Your task to perform on an android device: Set the phone to "Do not disturb". Image 0: 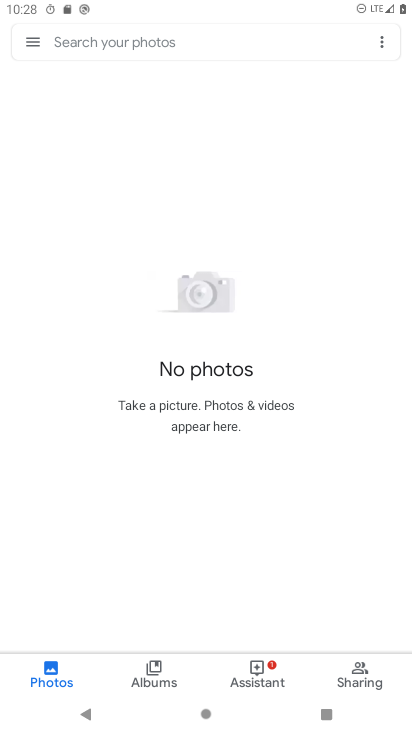
Step 0: press home button
Your task to perform on an android device: Set the phone to "Do not disturb". Image 1: 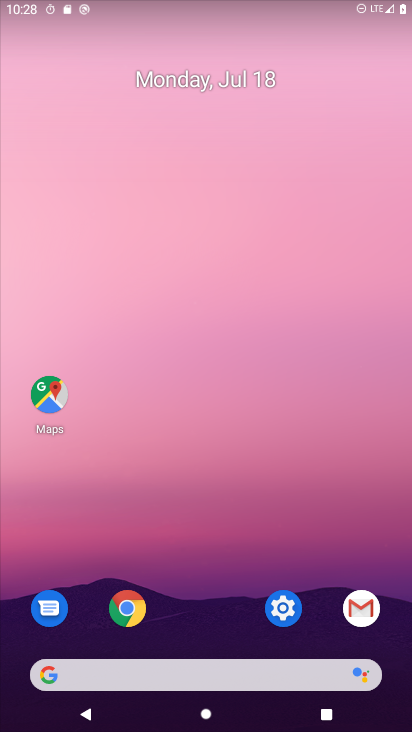
Step 1: click (295, 618)
Your task to perform on an android device: Set the phone to "Do not disturb". Image 2: 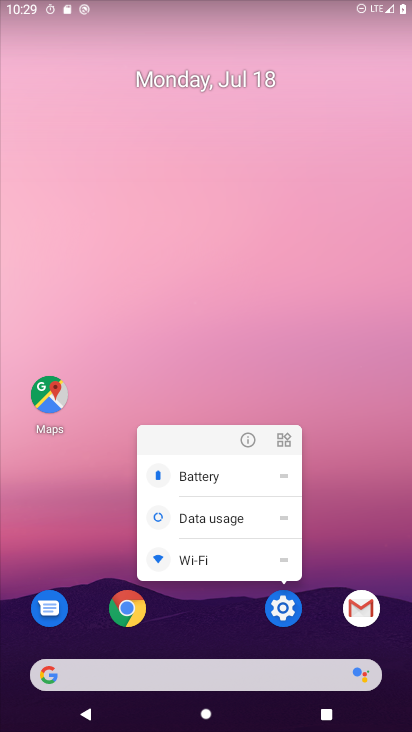
Step 2: click (283, 610)
Your task to perform on an android device: Set the phone to "Do not disturb". Image 3: 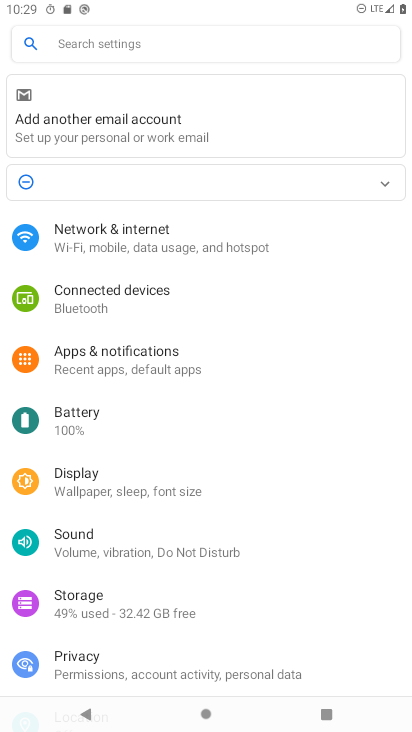
Step 3: click (89, 41)
Your task to perform on an android device: Set the phone to "Do not disturb". Image 4: 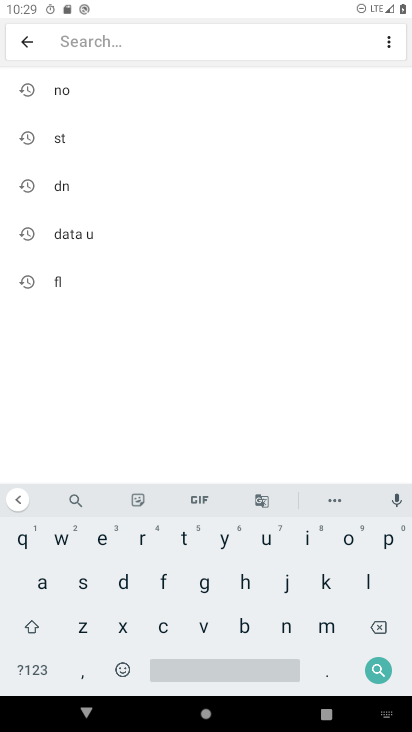
Step 4: click (118, 585)
Your task to perform on an android device: Set the phone to "Do not disturb". Image 5: 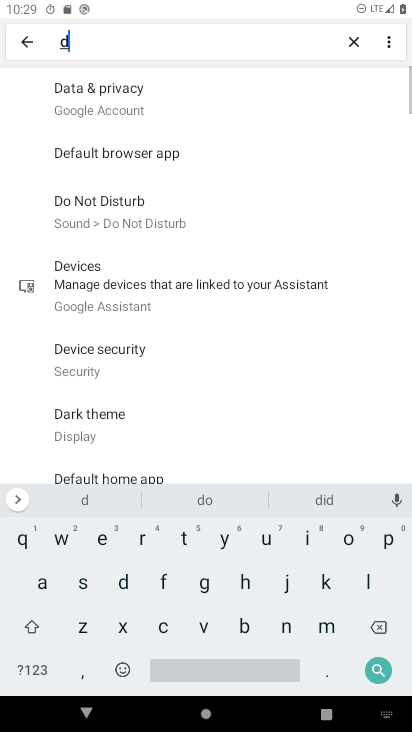
Step 5: click (288, 622)
Your task to perform on an android device: Set the phone to "Do not disturb". Image 6: 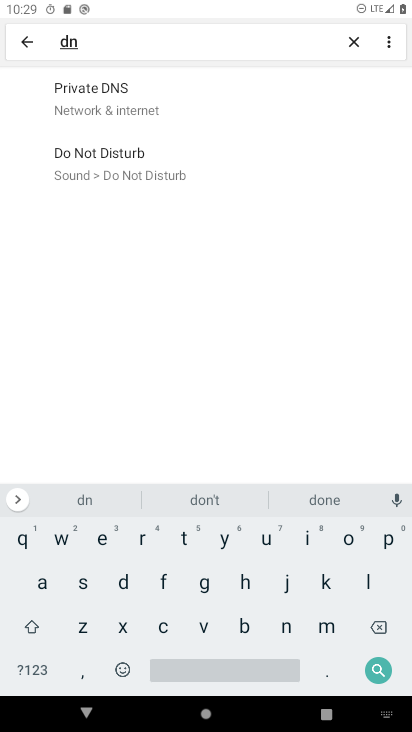
Step 6: click (119, 579)
Your task to perform on an android device: Set the phone to "Do not disturb". Image 7: 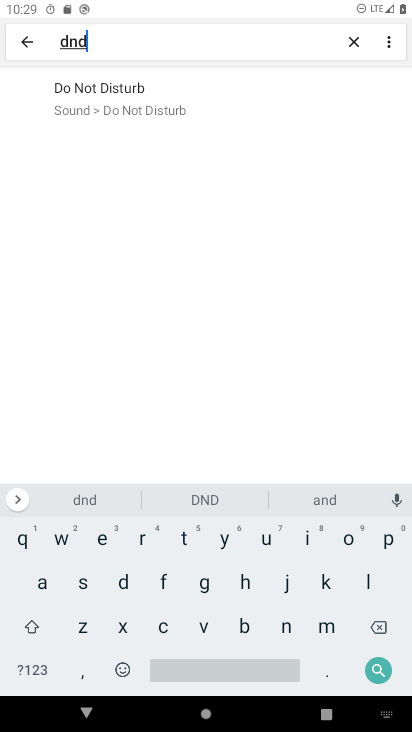
Step 7: click (131, 94)
Your task to perform on an android device: Set the phone to "Do not disturb". Image 8: 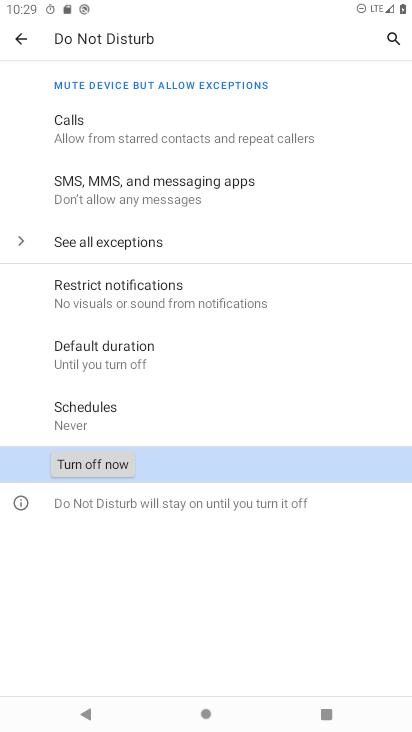
Step 8: click (89, 463)
Your task to perform on an android device: Set the phone to "Do not disturb". Image 9: 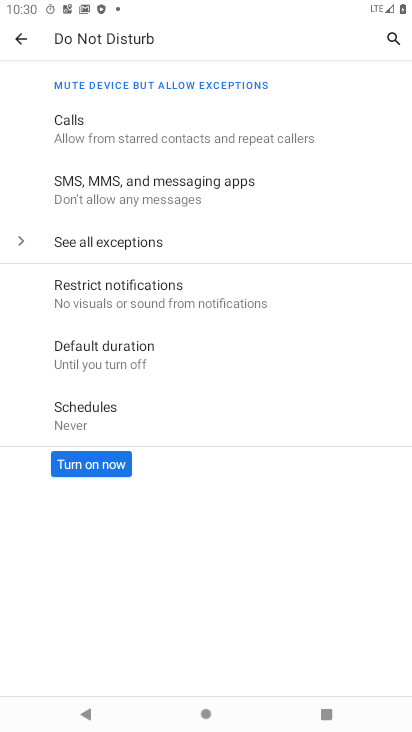
Step 9: task complete